Your task to perform on an android device: toggle location history Image 0: 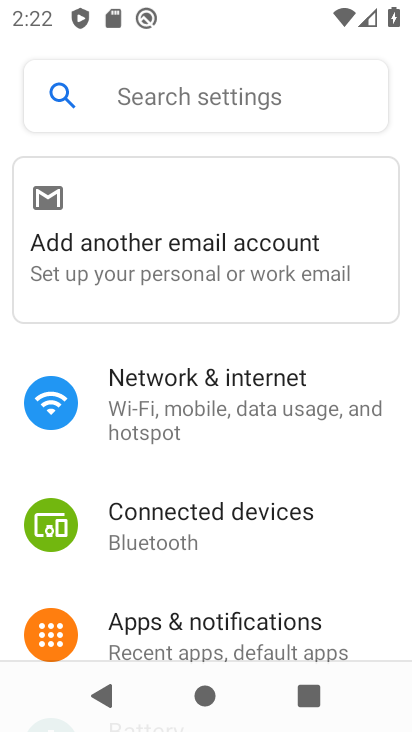
Step 0: drag from (214, 592) to (328, 270)
Your task to perform on an android device: toggle location history Image 1: 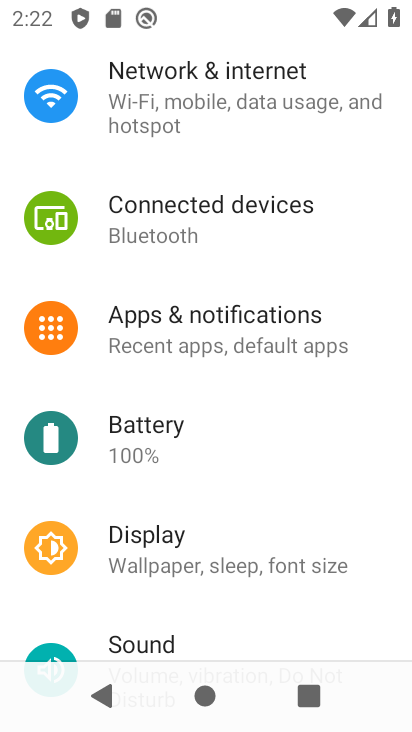
Step 1: drag from (272, 575) to (369, 278)
Your task to perform on an android device: toggle location history Image 2: 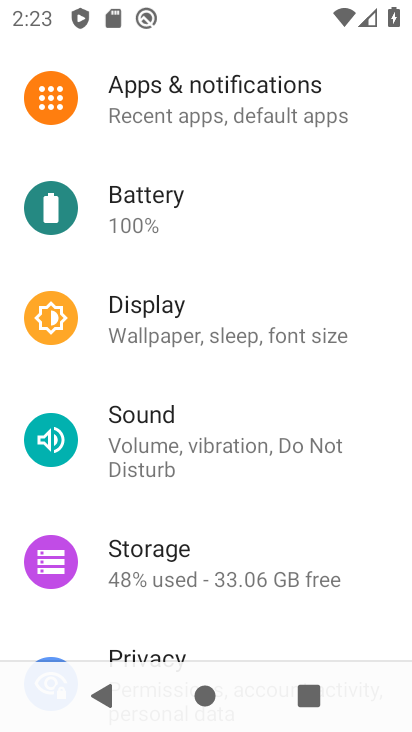
Step 2: drag from (210, 565) to (358, 239)
Your task to perform on an android device: toggle location history Image 3: 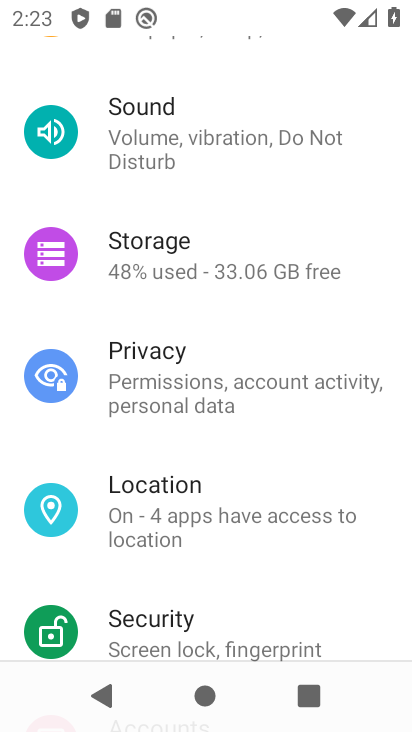
Step 3: click (253, 503)
Your task to perform on an android device: toggle location history Image 4: 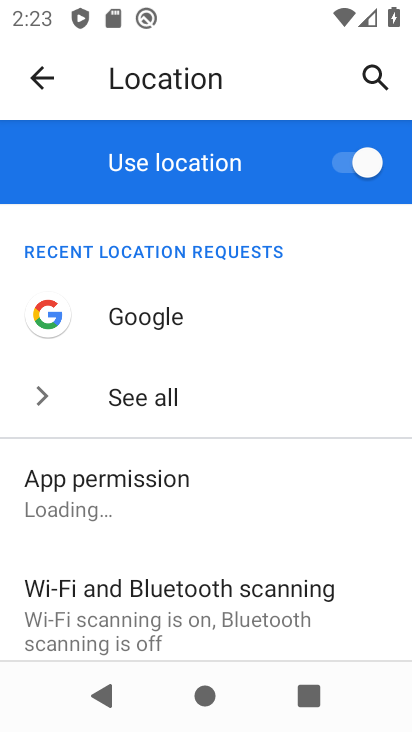
Step 4: drag from (234, 604) to (347, 281)
Your task to perform on an android device: toggle location history Image 5: 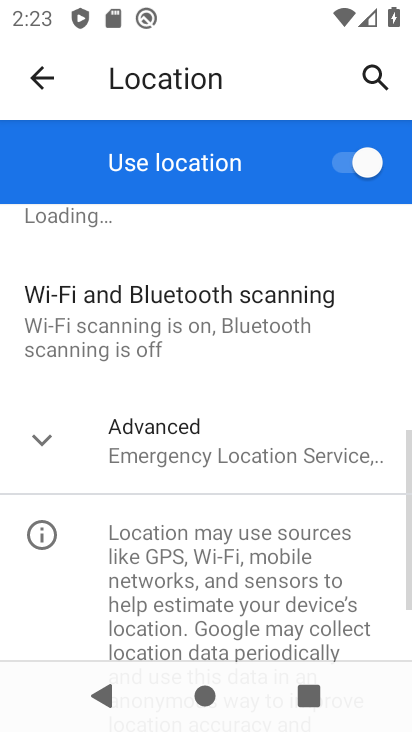
Step 5: click (303, 458)
Your task to perform on an android device: toggle location history Image 6: 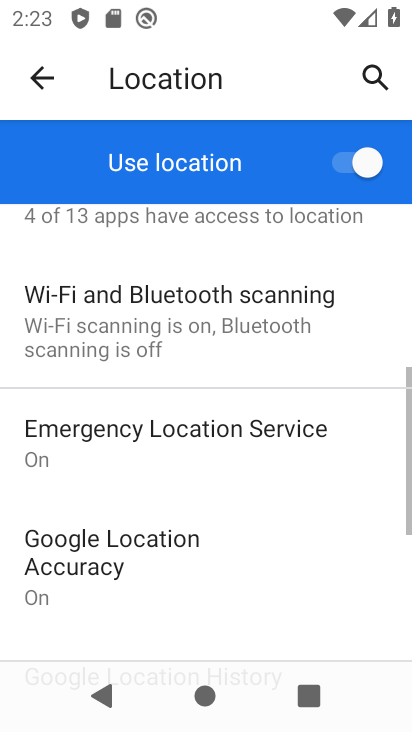
Step 6: drag from (282, 570) to (398, 236)
Your task to perform on an android device: toggle location history Image 7: 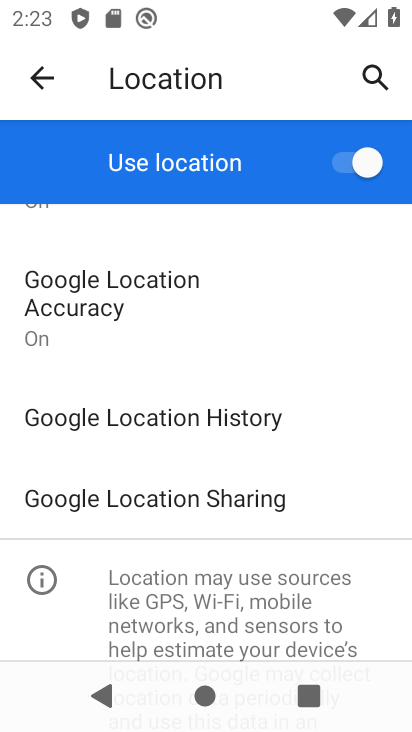
Step 7: click (255, 420)
Your task to perform on an android device: toggle location history Image 8: 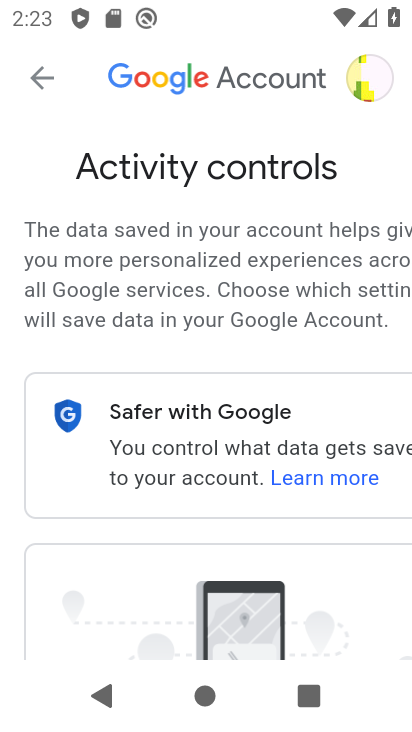
Step 8: drag from (207, 572) to (328, 114)
Your task to perform on an android device: toggle location history Image 9: 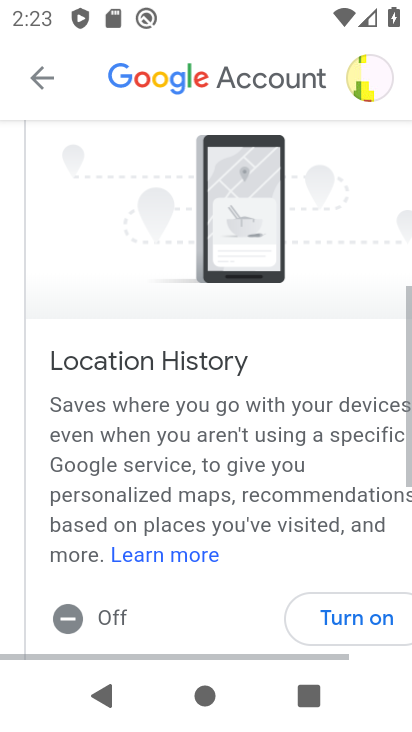
Step 9: drag from (183, 463) to (247, 223)
Your task to perform on an android device: toggle location history Image 10: 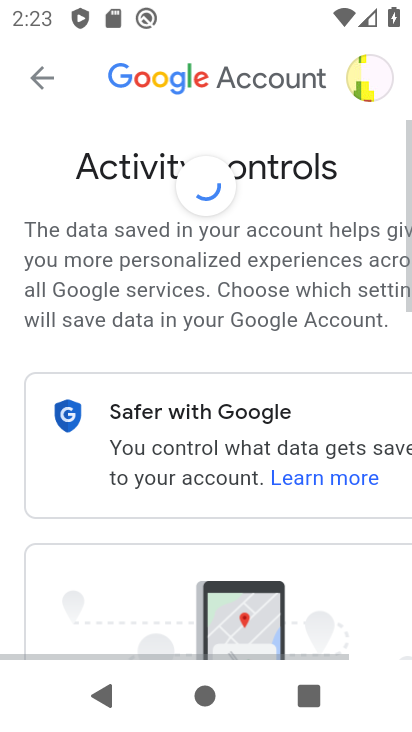
Step 10: click (344, 395)
Your task to perform on an android device: toggle location history Image 11: 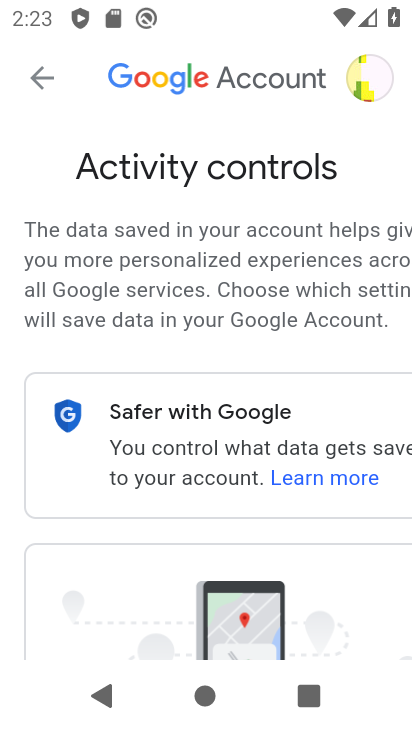
Step 11: drag from (284, 605) to (395, 119)
Your task to perform on an android device: toggle location history Image 12: 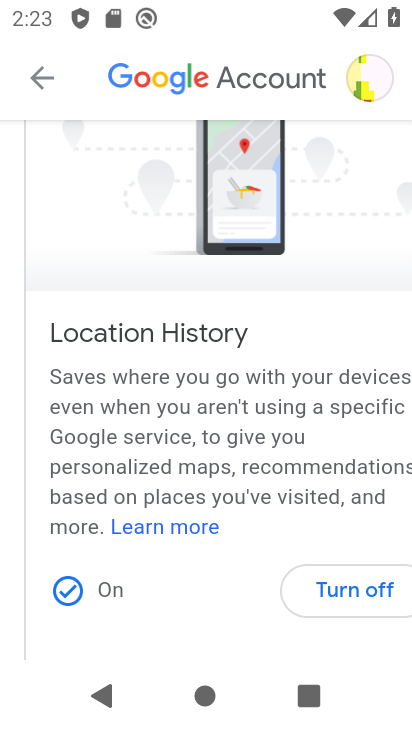
Step 12: click (365, 599)
Your task to perform on an android device: toggle location history Image 13: 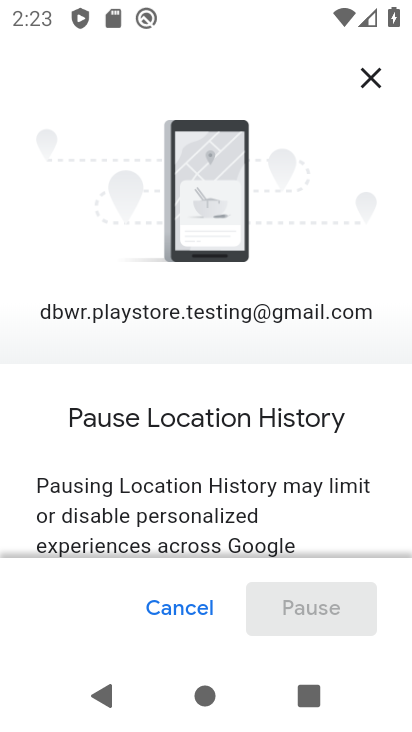
Step 13: drag from (206, 523) to (314, 56)
Your task to perform on an android device: toggle location history Image 14: 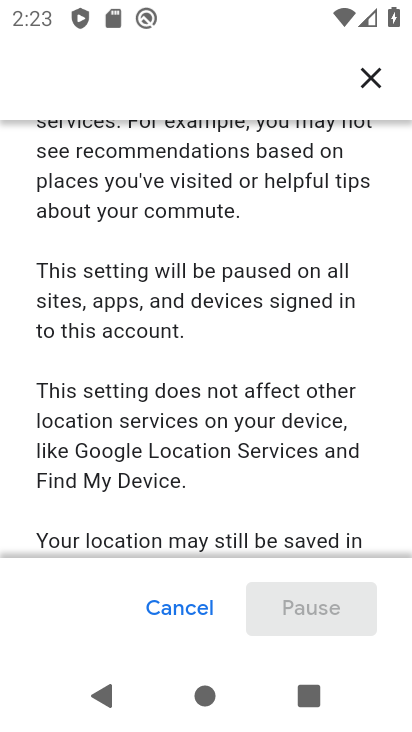
Step 14: drag from (213, 517) to (387, 55)
Your task to perform on an android device: toggle location history Image 15: 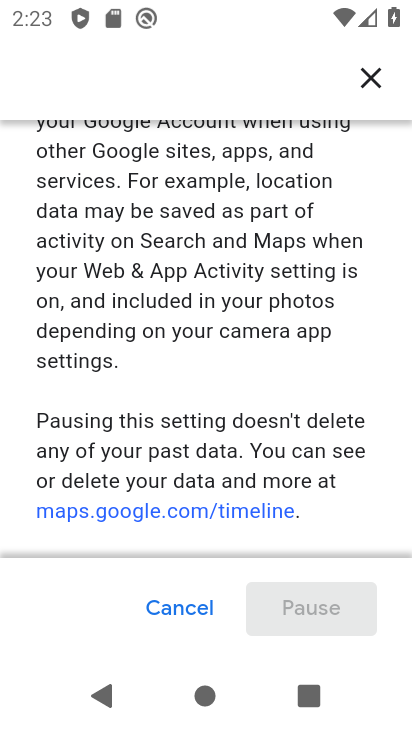
Step 15: drag from (210, 446) to (334, 69)
Your task to perform on an android device: toggle location history Image 16: 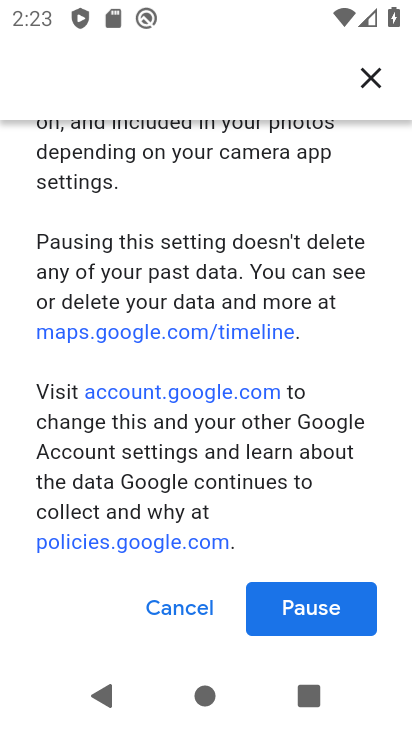
Step 16: click (319, 623)
Your task to perform on an android device: toggle location history Image 17: 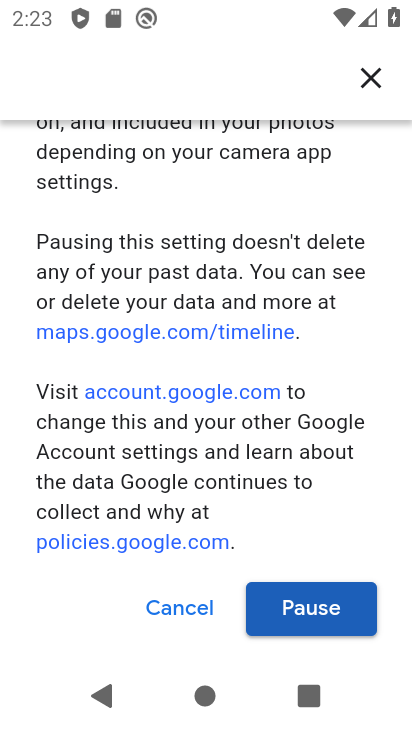
Step 17: click (319, 623)
Your task to perform on an android device: toggle location history Image 18: 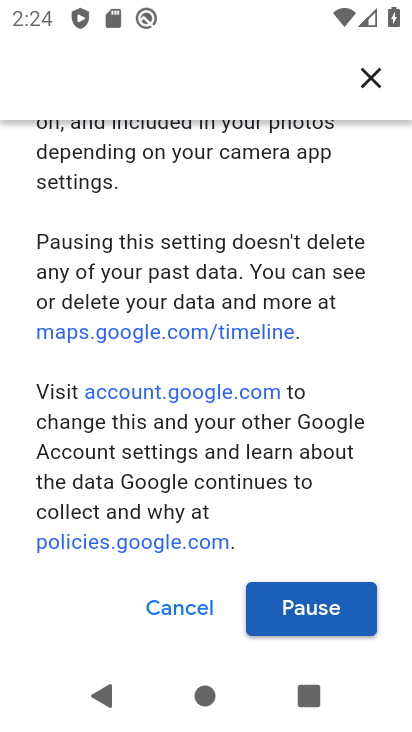
Step 18: click (319, 623)
Your task to perform on an android device: toggle location history Image 19: 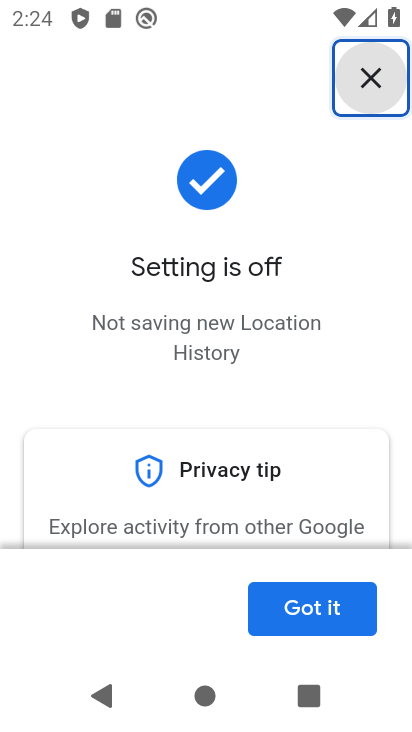
Step 19: click (319, 623)
Your task to perform on an android device: toggle location history Image 20: 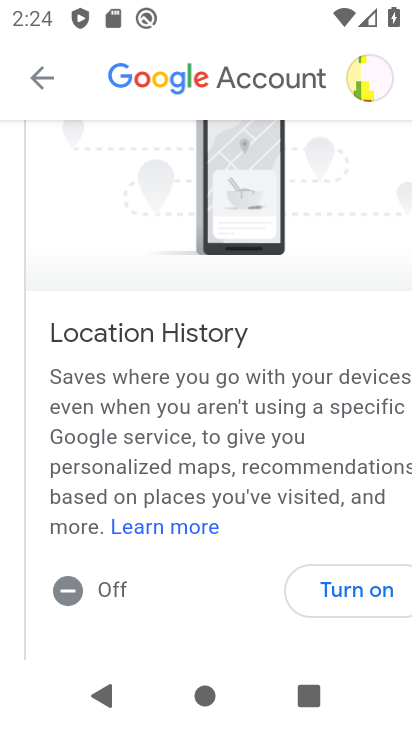
Step 20: task complete